Your task to perform on an android device: show emergency info Image 0: 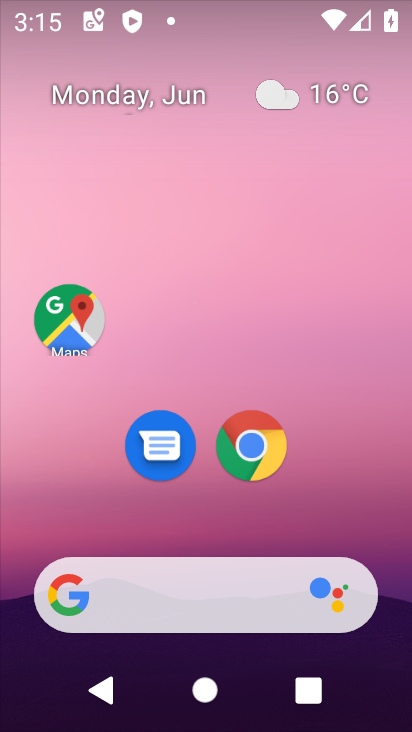
Step 0: drag from (209, 518) to (209, 240)
Your task to perform on an android device: show emergency info Image 1: 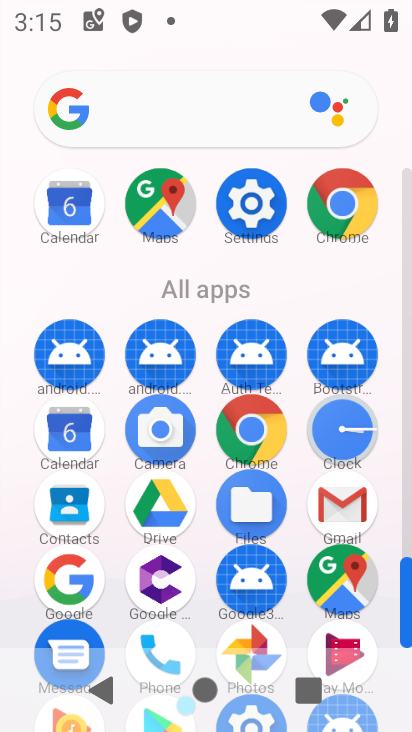
Step 1: click (239, 207)
Your task to perform on an android device: show emergency info Image 2: 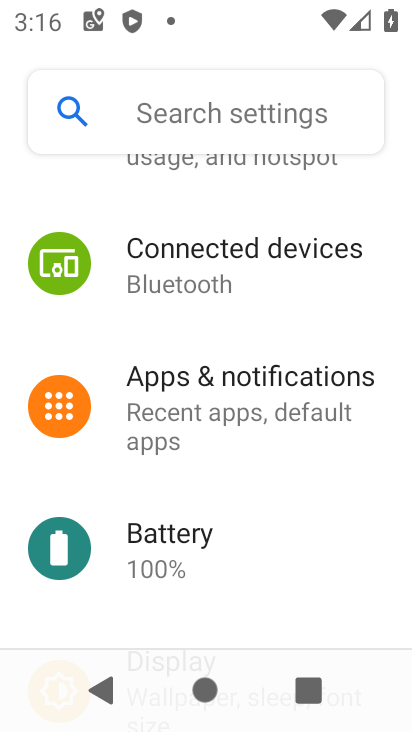
Step 2: drag from (197, 597) to (257, 164)
Your task to perform on an android device: show emergency info Image 3: 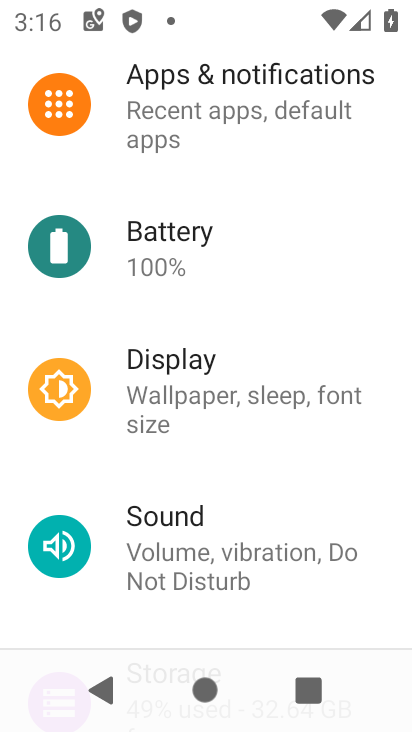
Step 3: drag from (223, 581) to (263, 208)
Your task to perform on an android device: show emergency info Image 4: 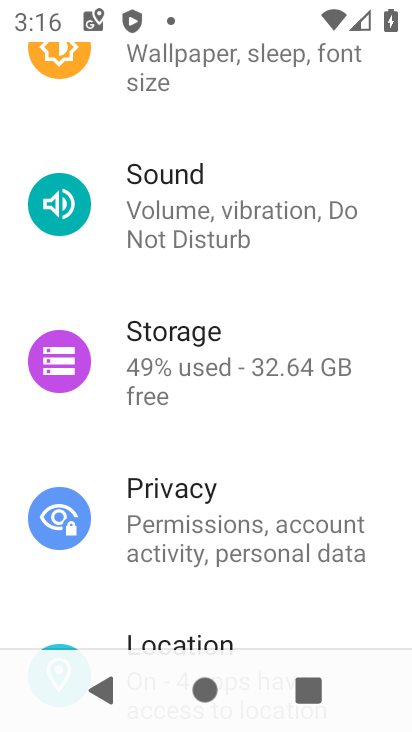
Step 4: drag from (199, 539) to (222, 203)
Your task to perform on an android device: show emergency info Image 5: 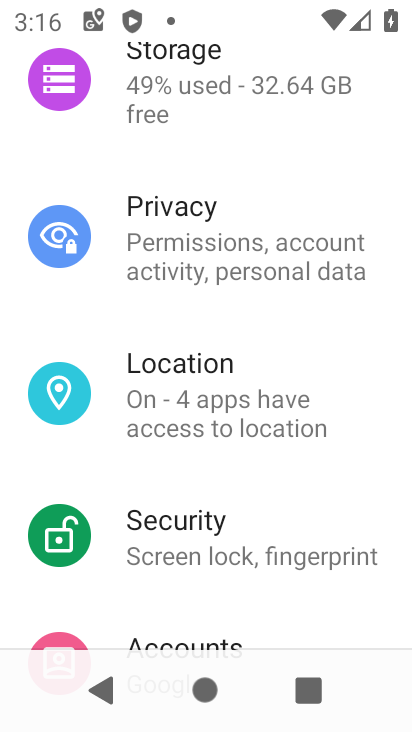
Step 5: drag from (198, 549) to (189, 240)
Your task to perform on an android device: show emergency info Image 6: 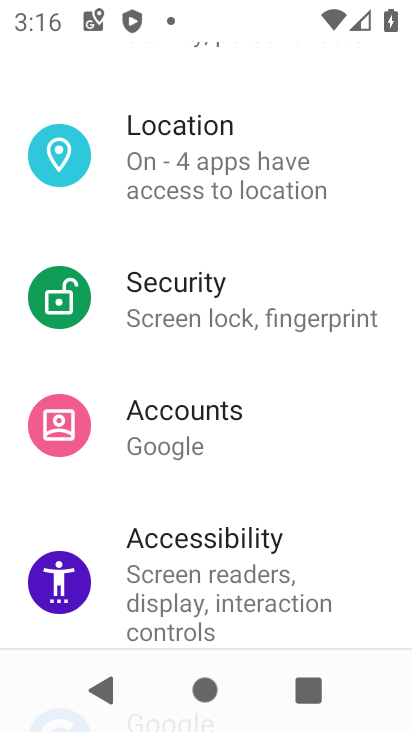
Step 6: drag from (155, 600) to (157, 237)
Your task to perform on an android device: show emergency info Image 7: 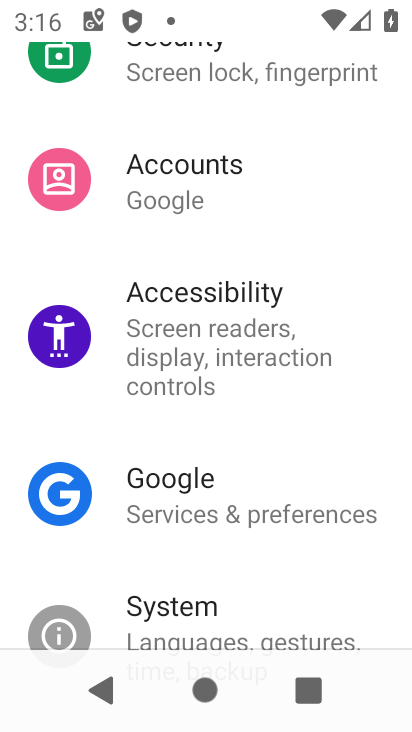
Step 7: drag from (196, 598) to (203, 247)
Your task to perform on an android device: show emergency info Image 8: 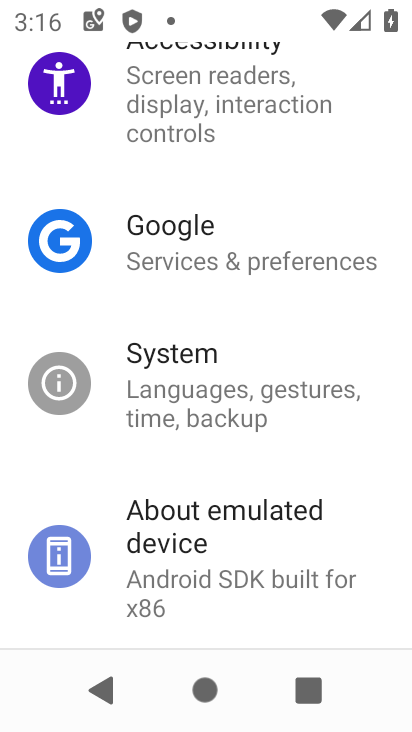
Step 8: click (156, 560)
Your task to perform on an android device: show emergency info Image 9: 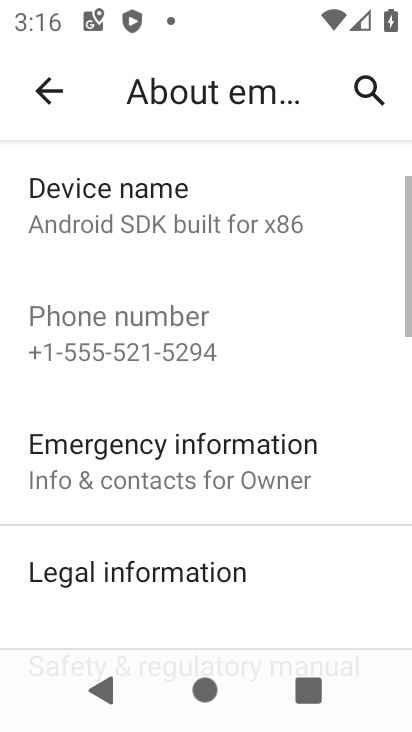
Step 9: click (180, 463)
Your task to perform on an android device: show emergency info Image 10: 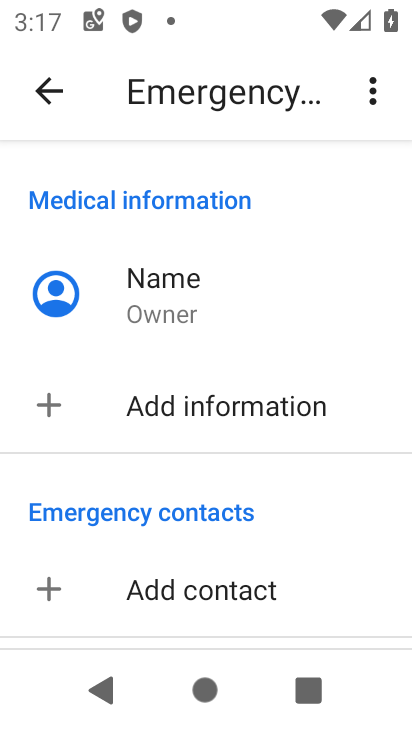
Step 10: task complete